Your task to perform on an android device: Check the settings for the YouTube app Image 0: 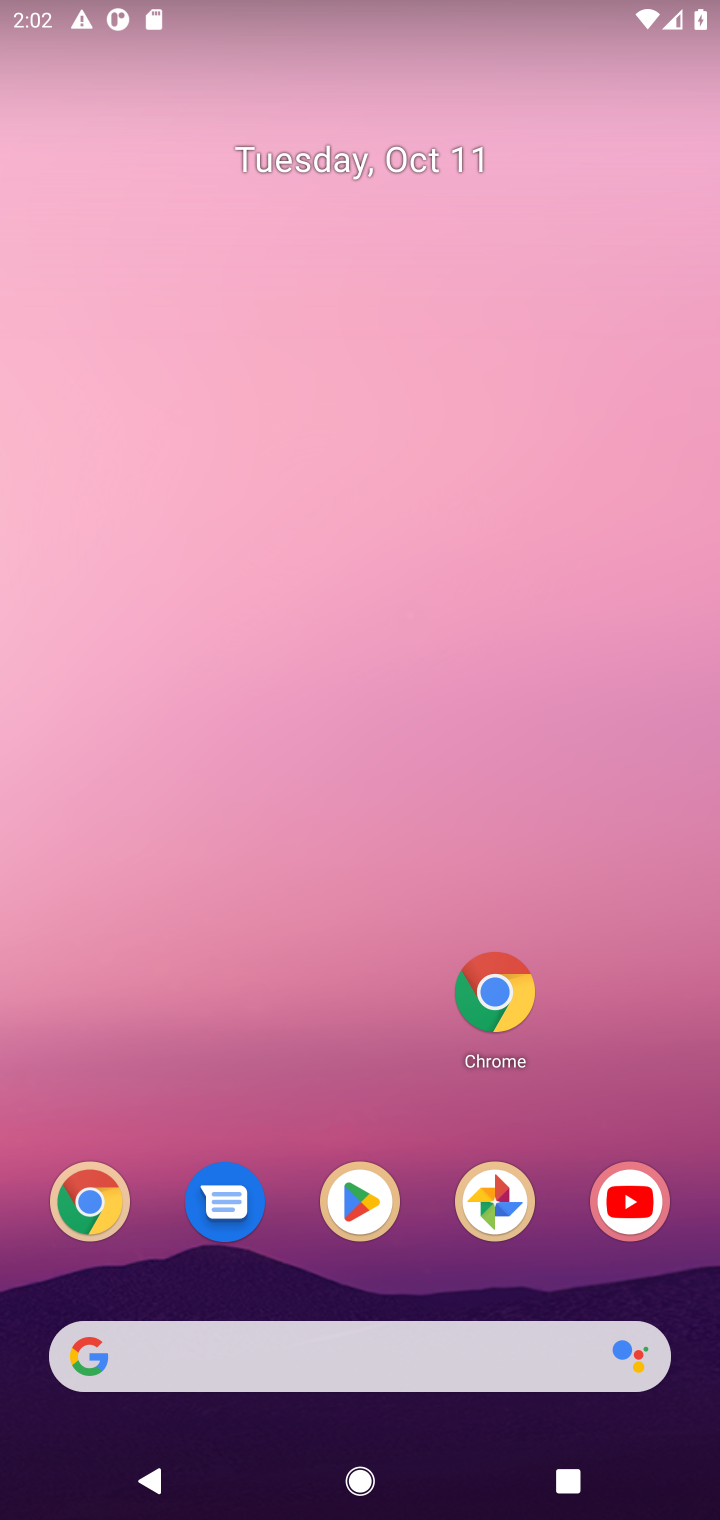
Step 0: click (628, 1210)
Your task to perform on an android device: Check the settings for the YouTube app Image 1: 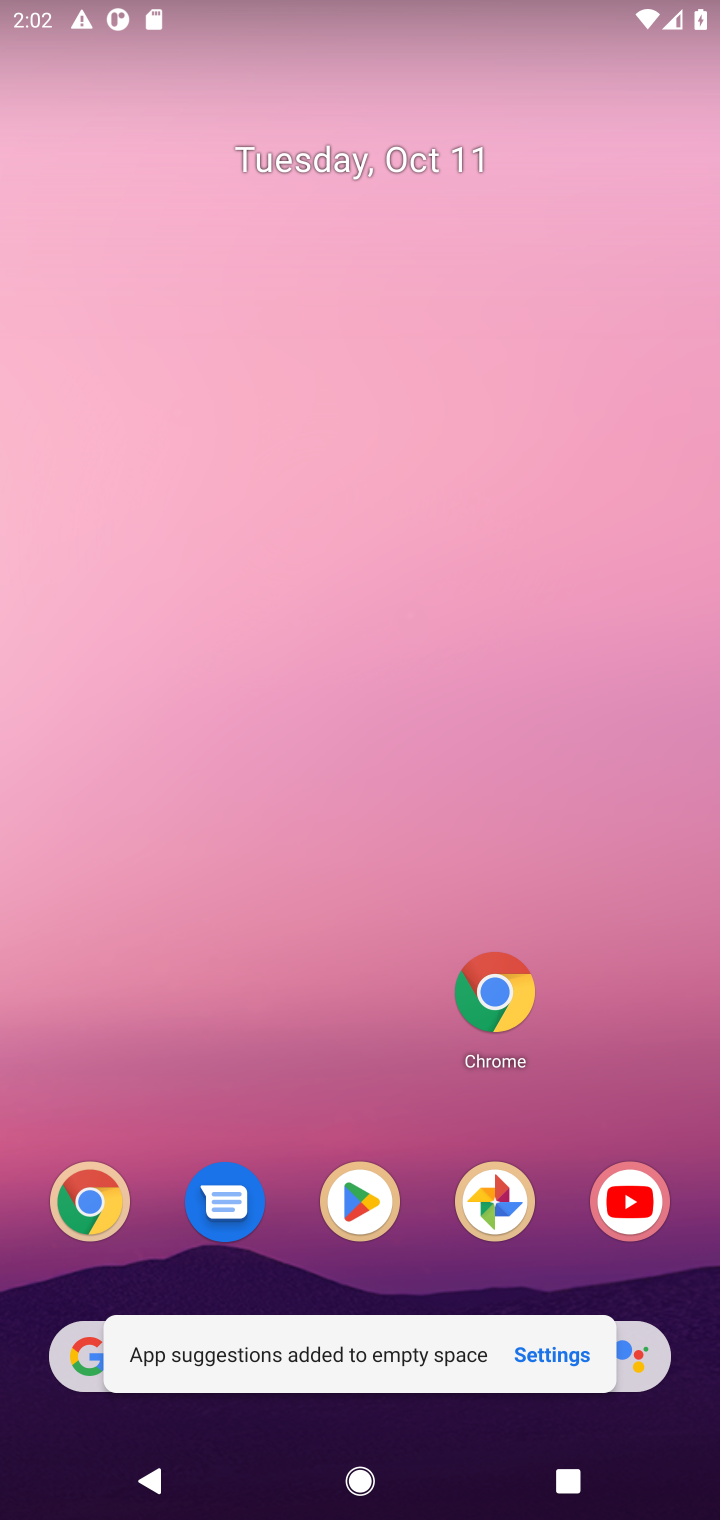
Step 1: click (631, 1205)
Your task to perform on an android device: Check the settings for the YouTube app Image 2: 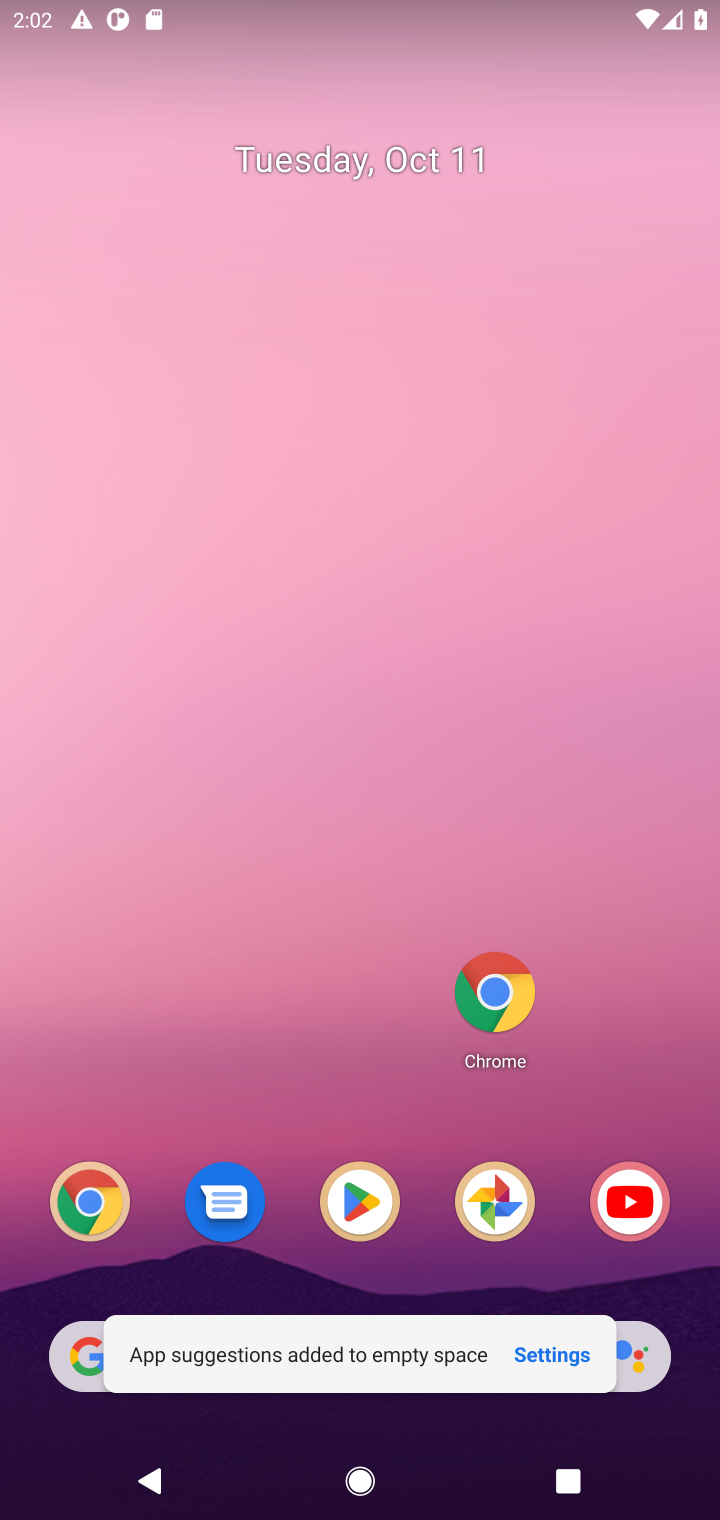
Step 2: click (631, 1205)
Your task to perform on an android device: Check the settings for the YouTube app Image 3: 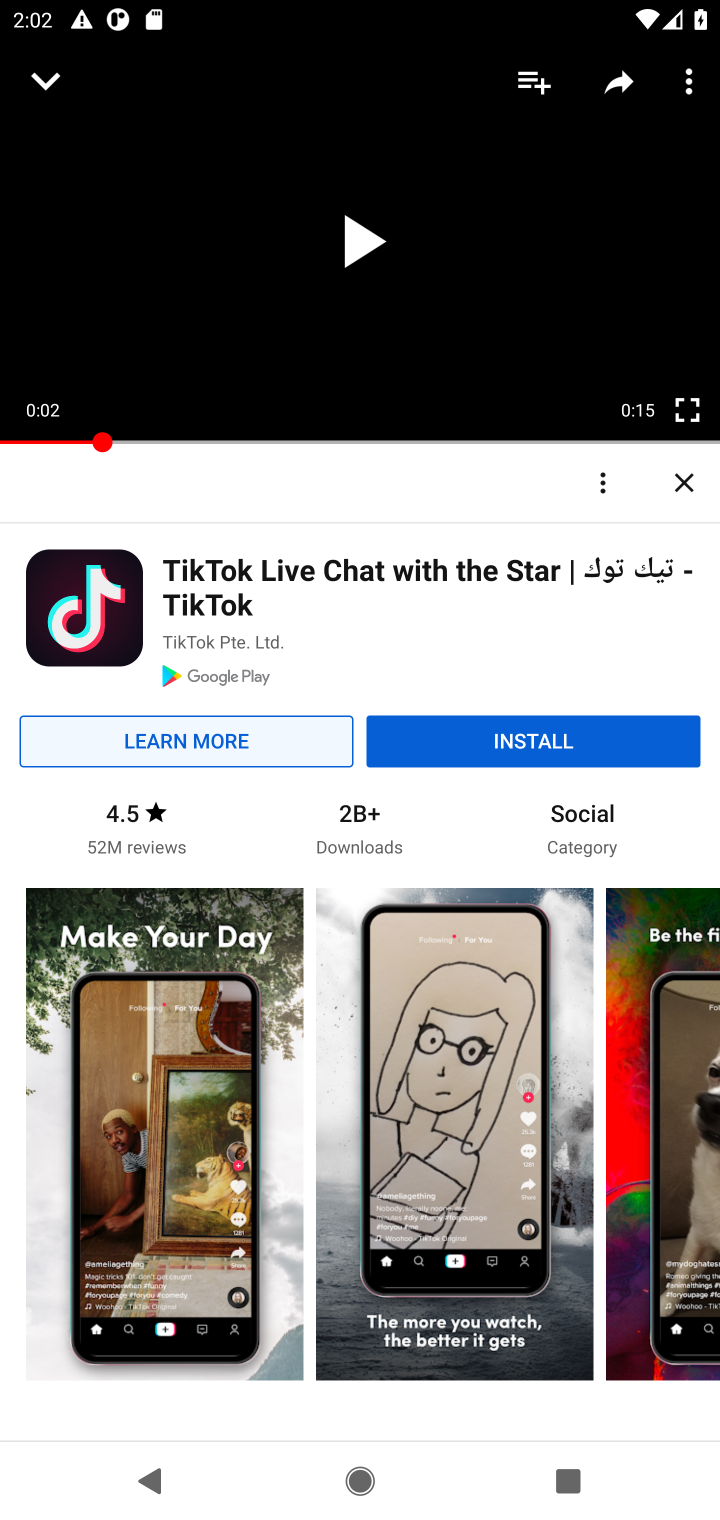
Step 3: press back button
Your task to perform on an android device: Check the settings for the YouTube app Image 4: 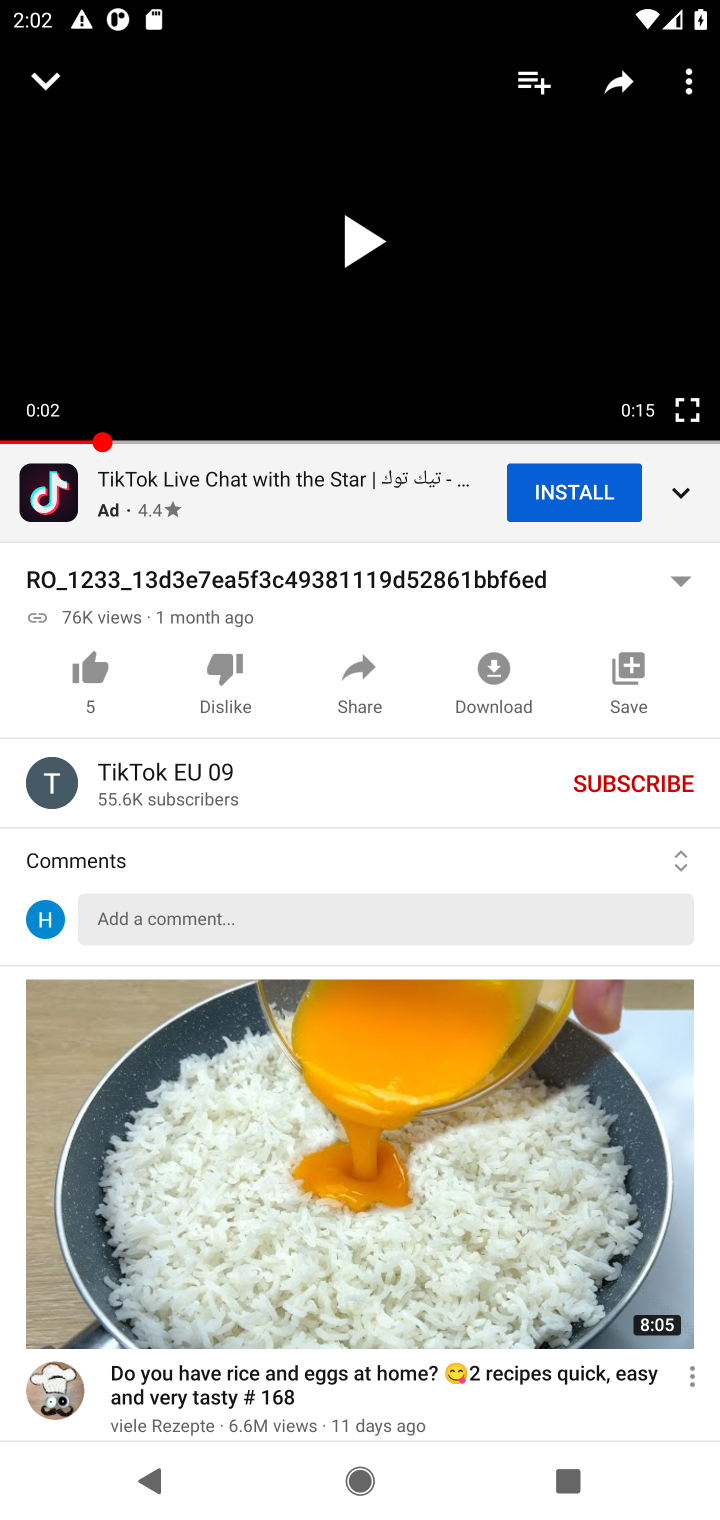
Step 4: press back button
Your task to perform on an android device: Check the settings for the YouTube app Image 5: 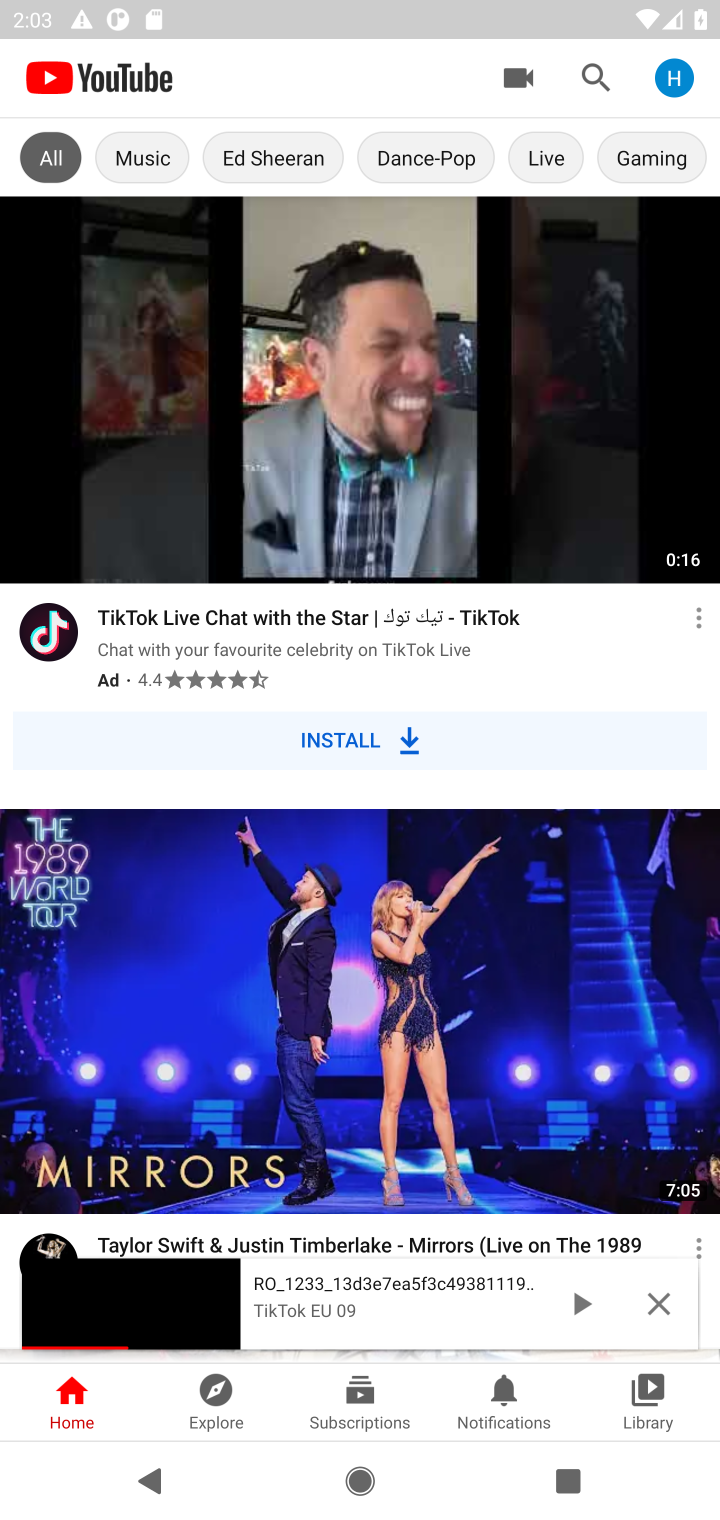
Step 5: click (671, 79)
Your task to perform on an android device: Check the settings for the YouTube app Image 6: 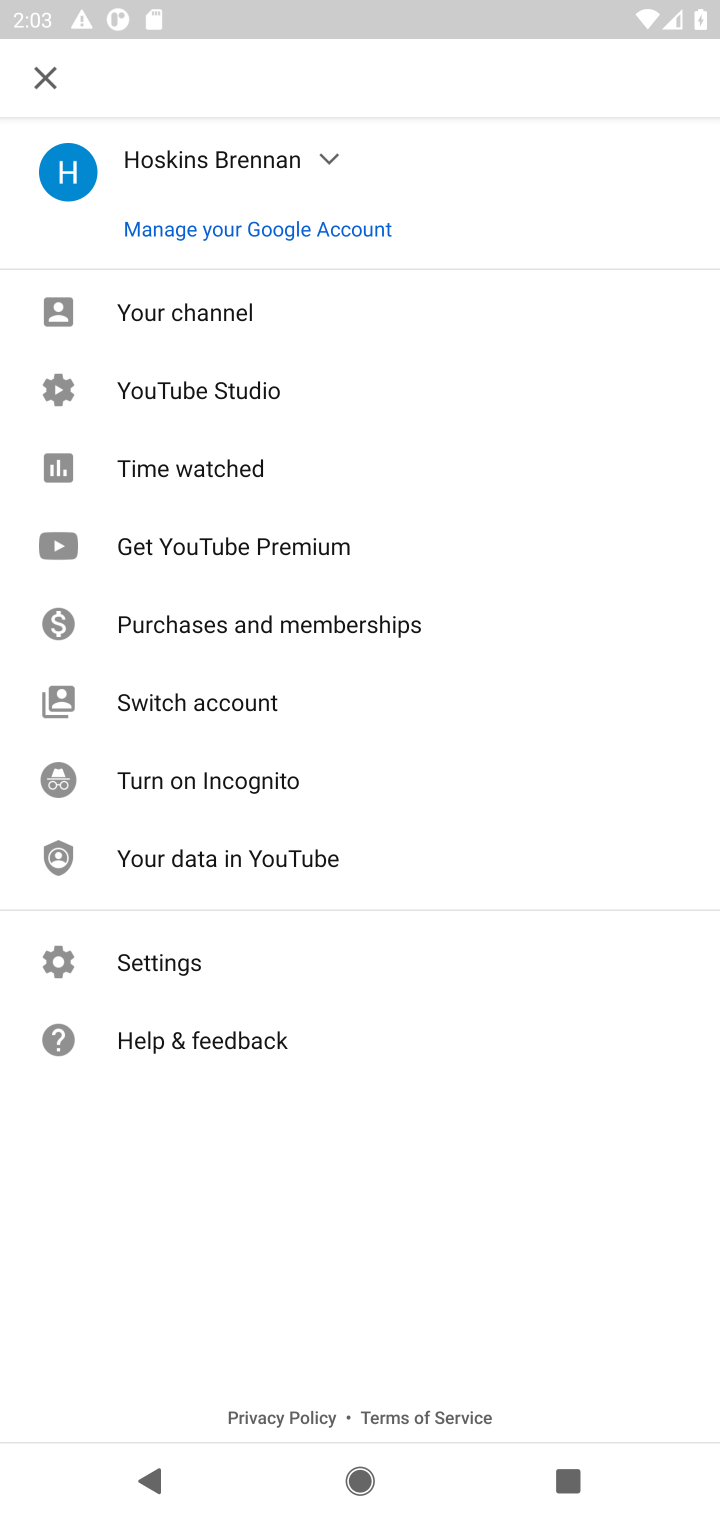
Step 6: click (185, 956)
Your task to perform on an android device: Check the settings for the YouTube app Image 7: 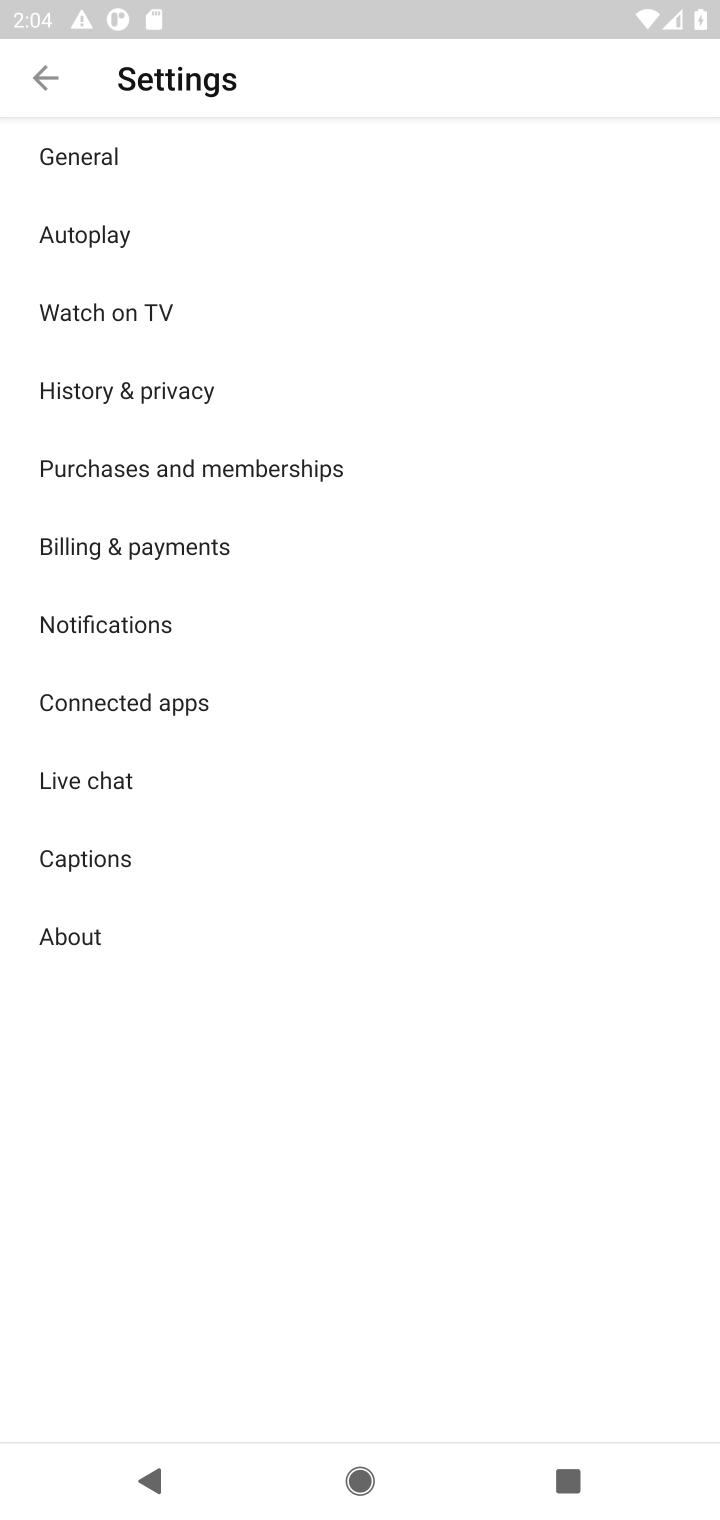
Step 7: task complete